Your task to perform on an android device: turn off location Image 0: 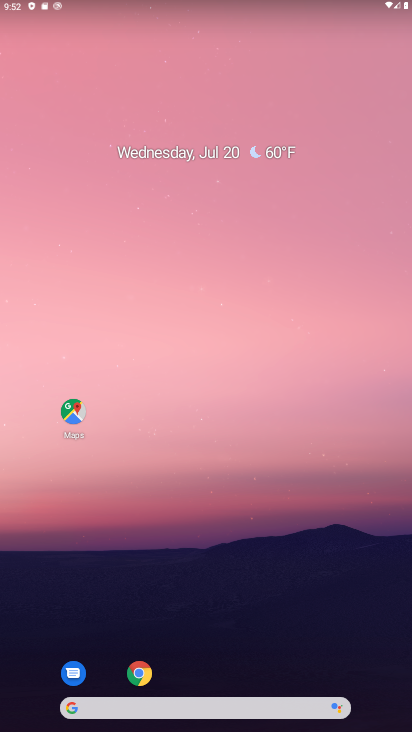
Step 0: drag from (214, 678) to (265, 188)
Your task to perform on an android device: turn off location Image 1: 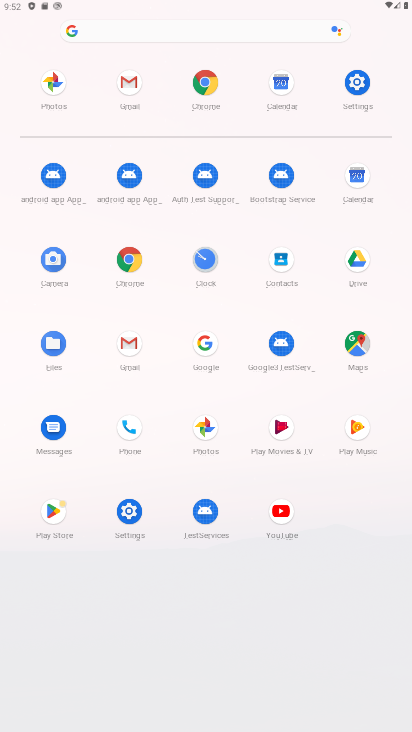
Step 1: click (139, 522)
Your task to perform on an android device: turn off location Image 2: 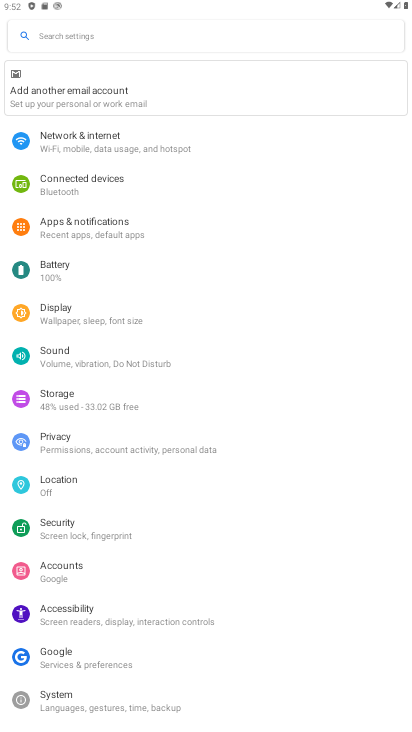
Step 2: click (84, 480)
Your task to perform on an android device: turn off location Image 3: 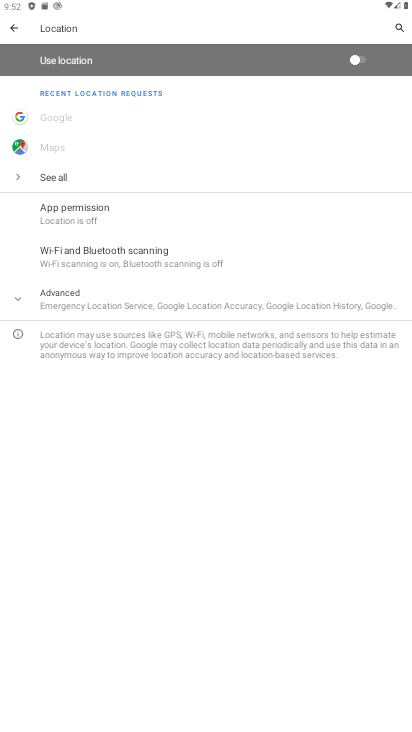
Step 3: task complete